Your task to perform on an android device: Do I have any events today? Image 0: 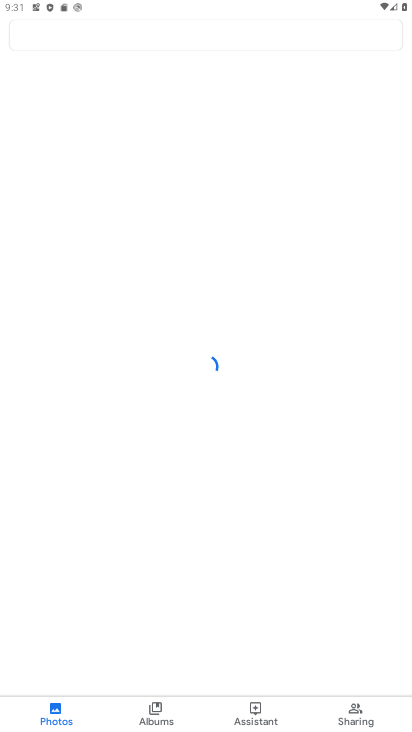
Step 0: press home button
Your task to perform on an android device: Do I have any events today? Image 1: 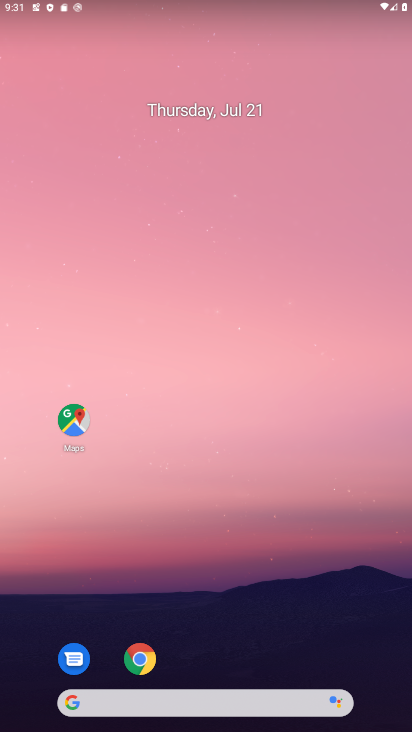
Step 1: drag from (329, 675) to (319, 97)
Your task to perform on an android device: Do I have any events today? Image 2: 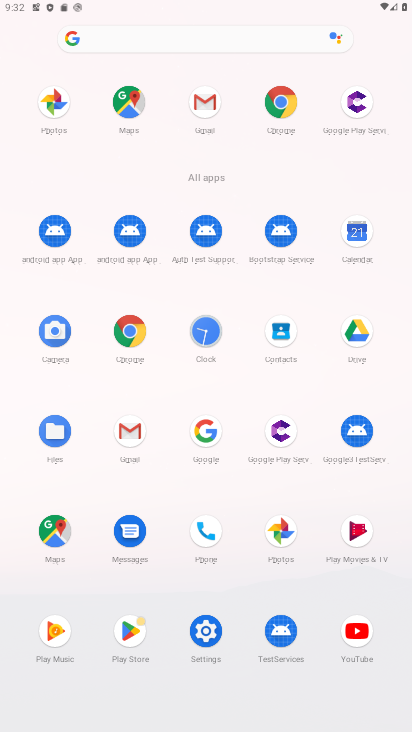
Step 2: click (360, 215)
Your task to perform on an android device: Do I have any events today? Image 3: 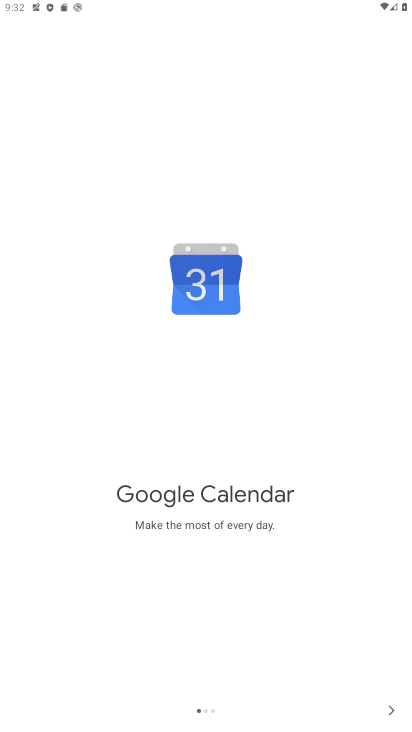
Step 3: click (388, 716)
Your task to perform on an android device: Do I have any events today? Image 4: 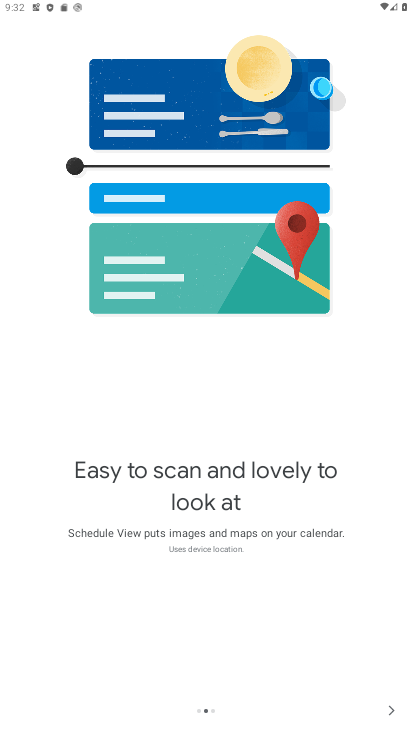
Step 4: click (388, 716)
Your task to perform on an android device: Do I have any events today? Image 5: 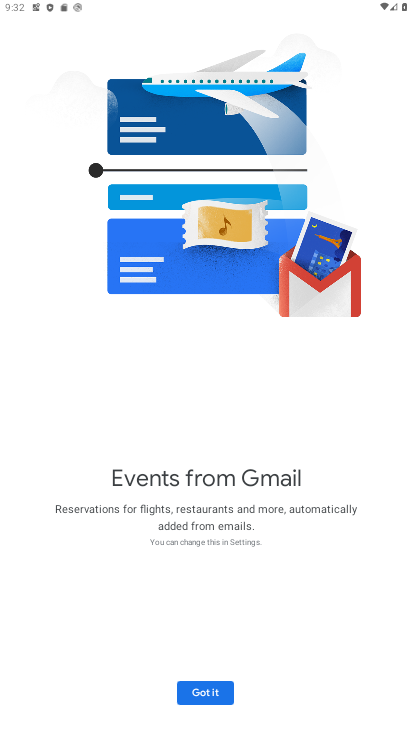
Step 5: click (216, 687)
Your task to perform on an android device: Do I have any events today? Image 6: 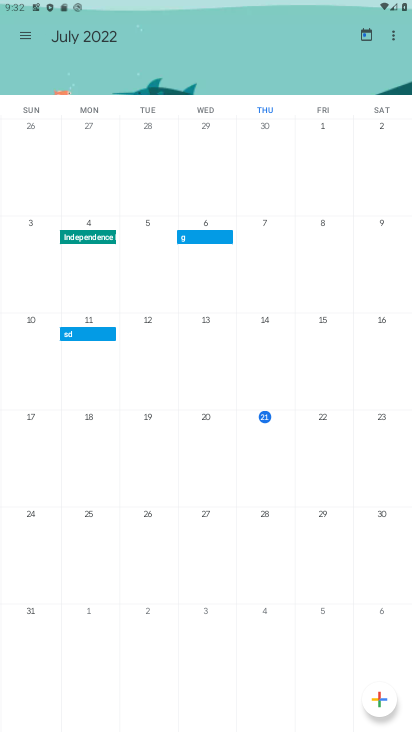
Step 6: click (307, 442)
Your task to perform on an android device: Do I have any events today? Image 7: 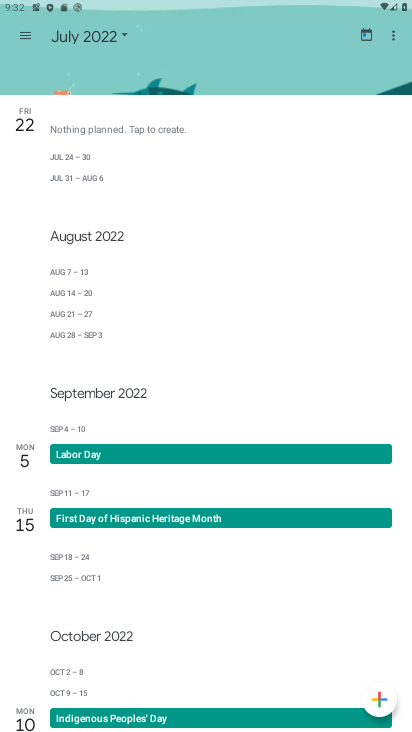
Step 7: click (327, 453)
Your task to perform on an android device: Do I have any events today? Image 8: 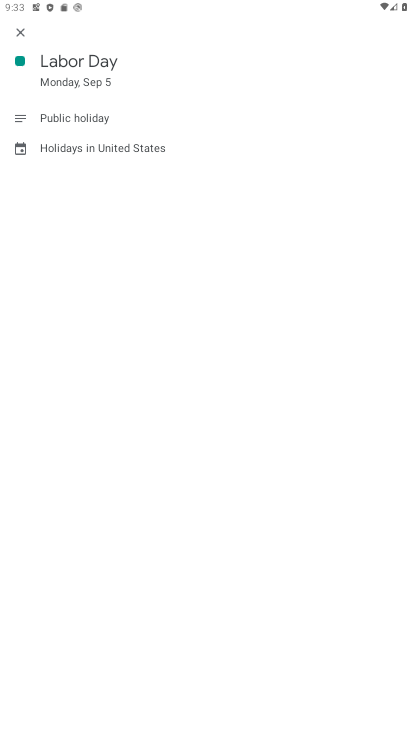
Step 8: click (33, 40)
Your task to perform on an android device: Do I have any events today? Image 9: 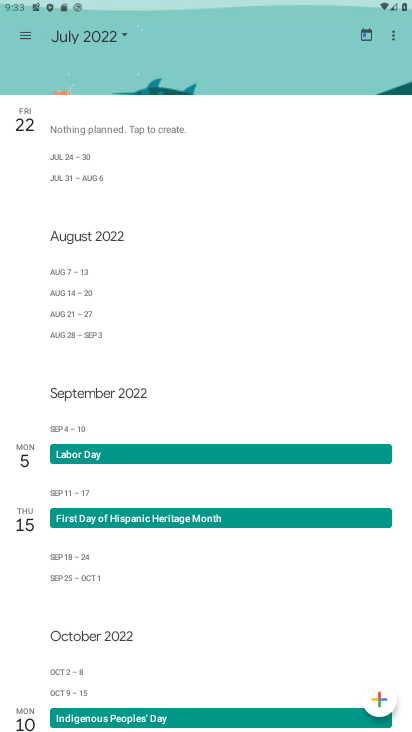
Step 9: task complete